Your task to perform on an android device: Open maps Image 0: 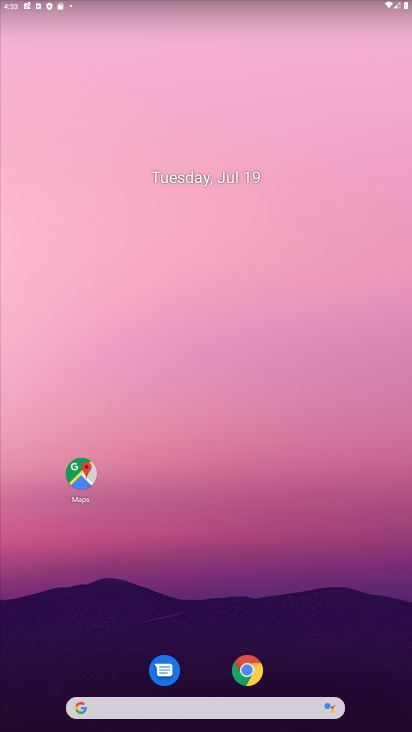
Step 0: drag from (311, 699) to (411, 4)
Your task to perform on an android device: Open maps Image 1: 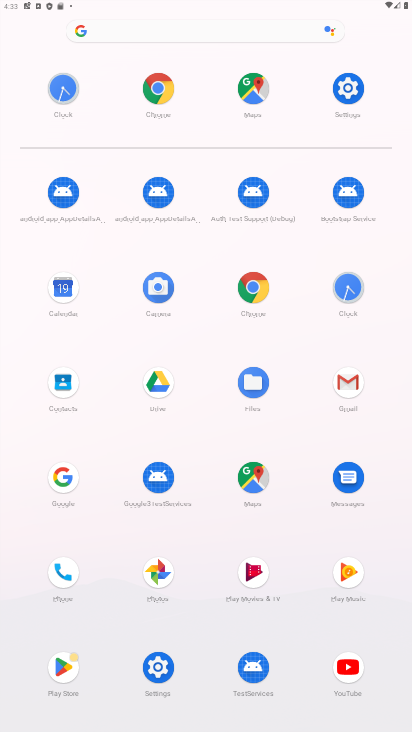
Step 1: click (255, 477)
Your task to perform on an android device: Open maps Image 2: 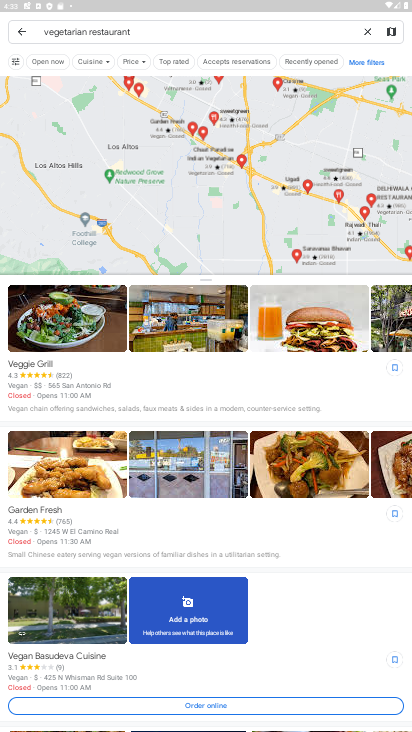
Step 2: task complete